Your task to perform on an android device: Open calendar and show me the fourth week of next month Image 0: 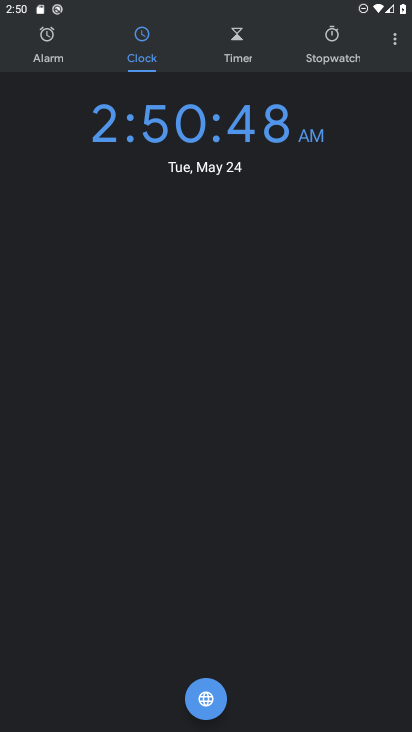
Step 0: press home button
Your task to perform on an android device: Open calendar and show me the fourth week of next month Image 1: 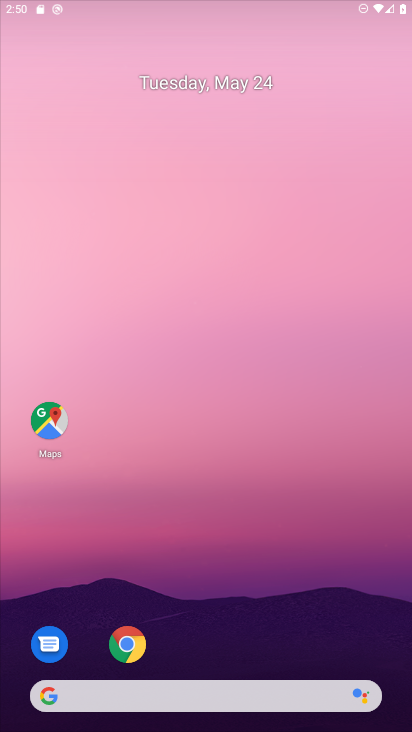
Step 1: drag from (334, 621) to (233, 172)
Your task to perform on an android device: Open calendar and show me the fourth week of next month Image 2: 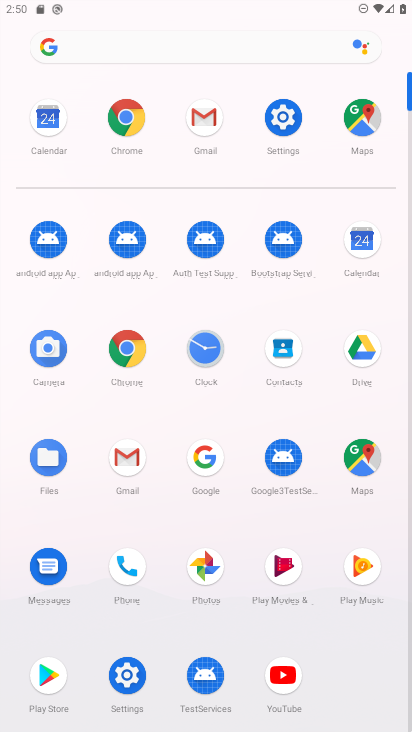
Step 2: click (366, 242)
Your task to perform on an android device: Open calendar and show me the fourth week of next month Image 3: 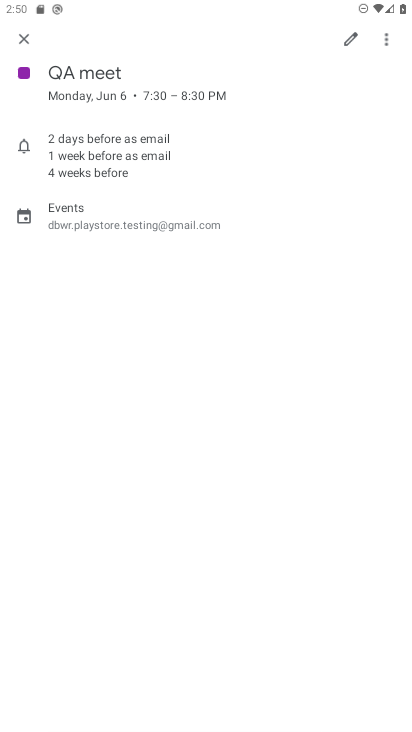
Step 3: click (12, 48)
Your task to perform on an android device: Open calendar and show me the fourth week of next month Image 4: 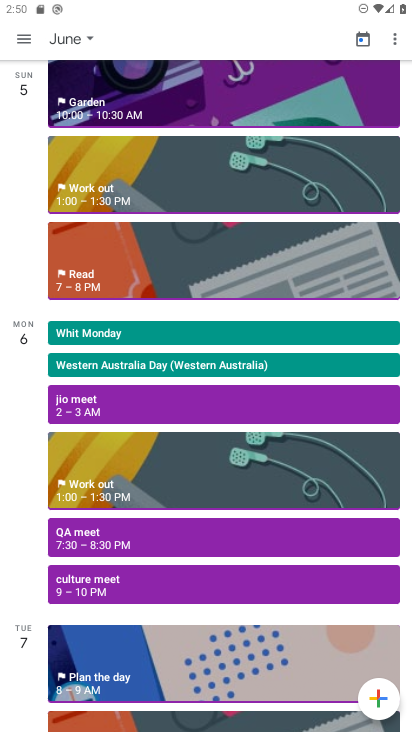
Step 4: click (103, 48)
Your task to perform on an android device: Open calendar and show me the fourth week of next month Image 5: 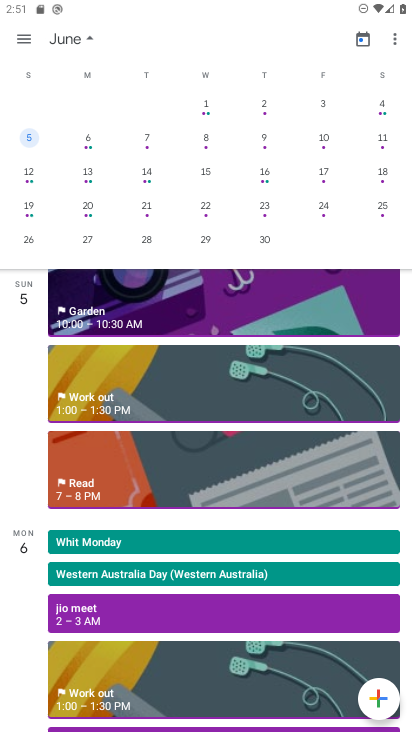
Step 5: click (26, 208)
Your task to perform on an android device: Open calendar and show me the fourth week of next month Image 6: 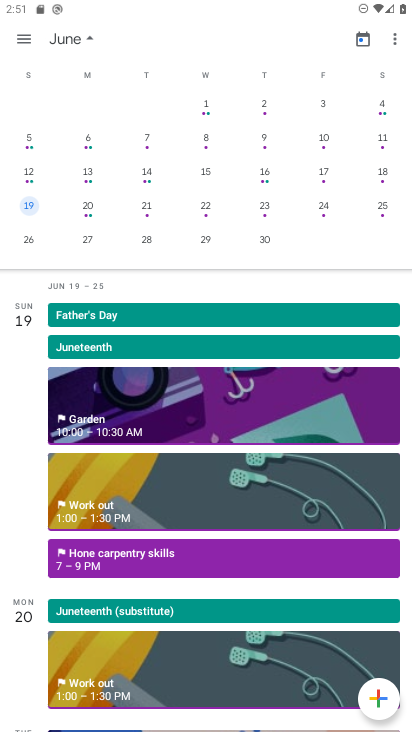
Step 6: task complete